Your task to perform on an android device: Add "razer blackwidow" to the cart on target, then select checkout. Image 0: 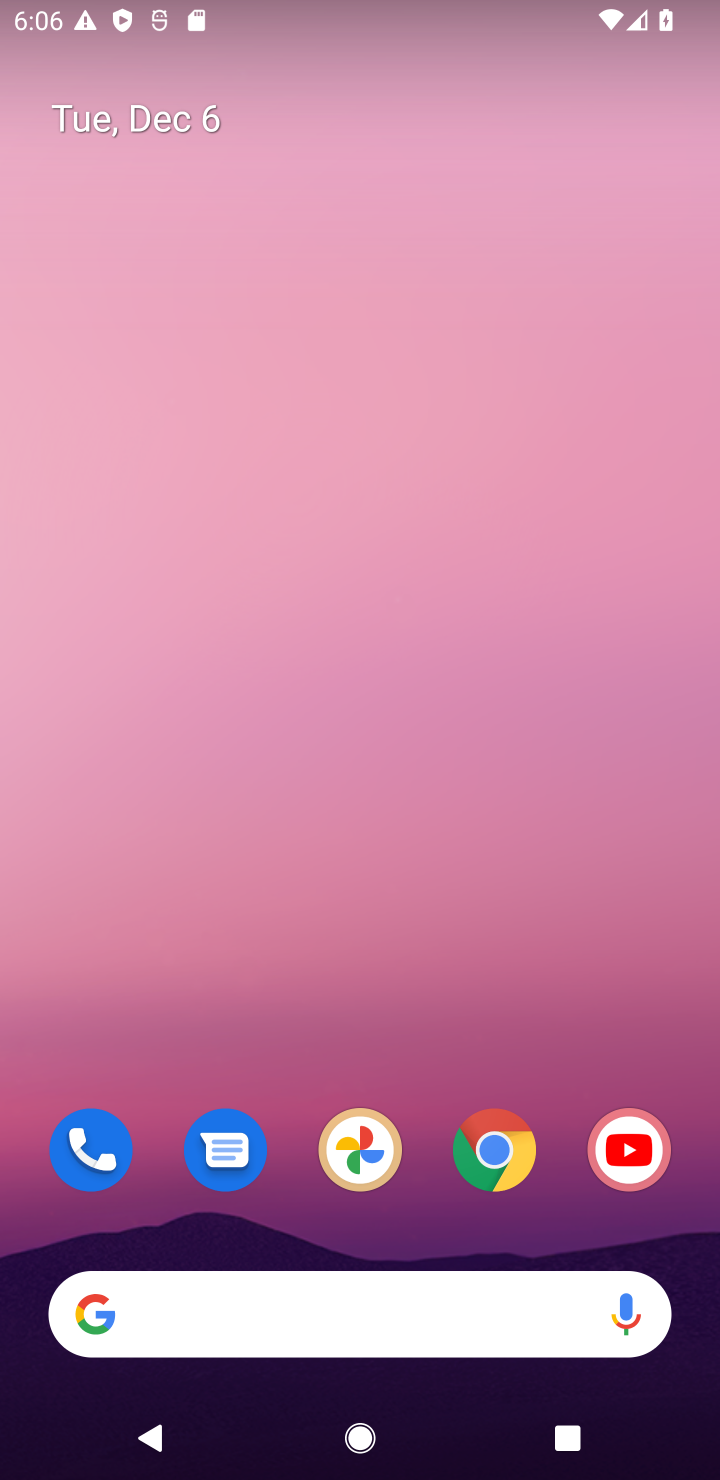
Step 0: click (506, 1137)
Your task to perform on an android device: Add "razer blackwidow" to the cart on target, then select checkout. Image 1: 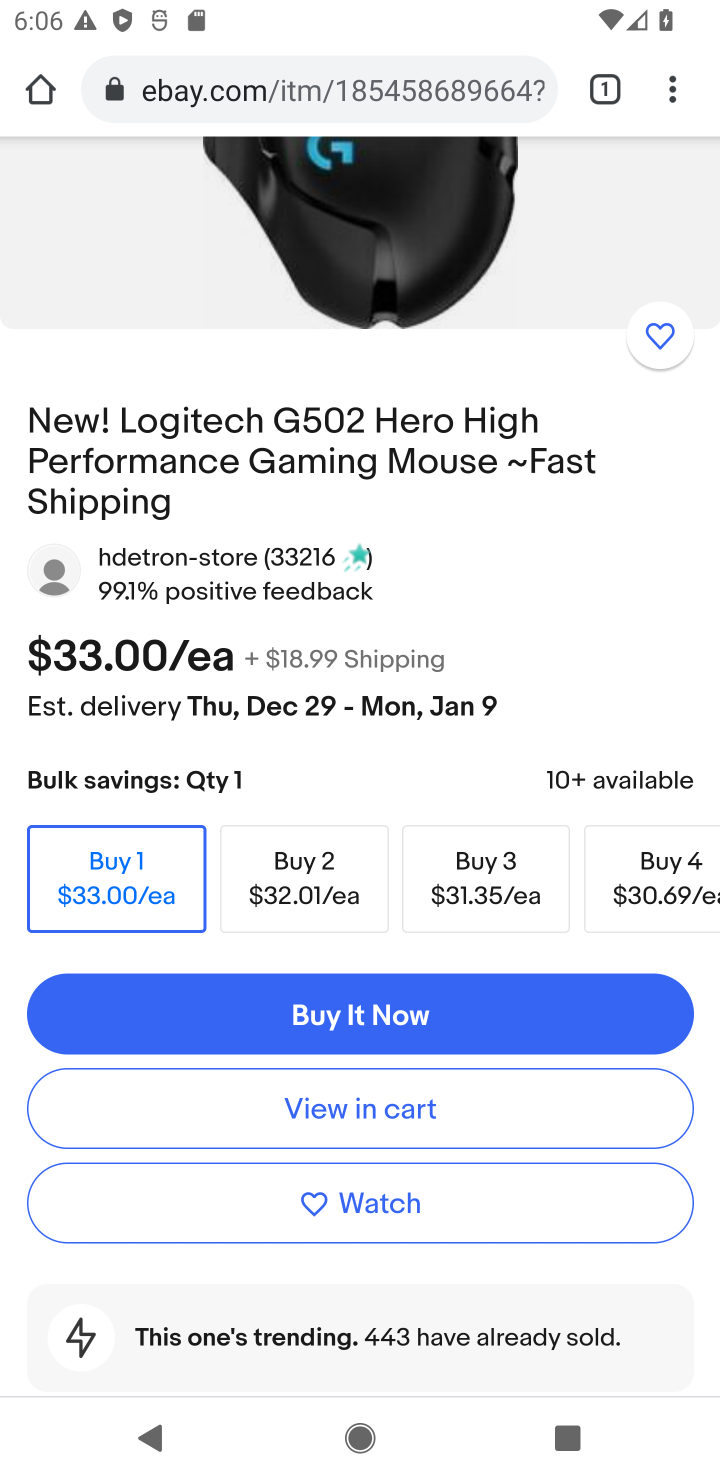
Step 1: click (259, 101)
Your task to perform on an android device: Add "razer blackwidow" to the cart on target, then select checkout. Image 2: 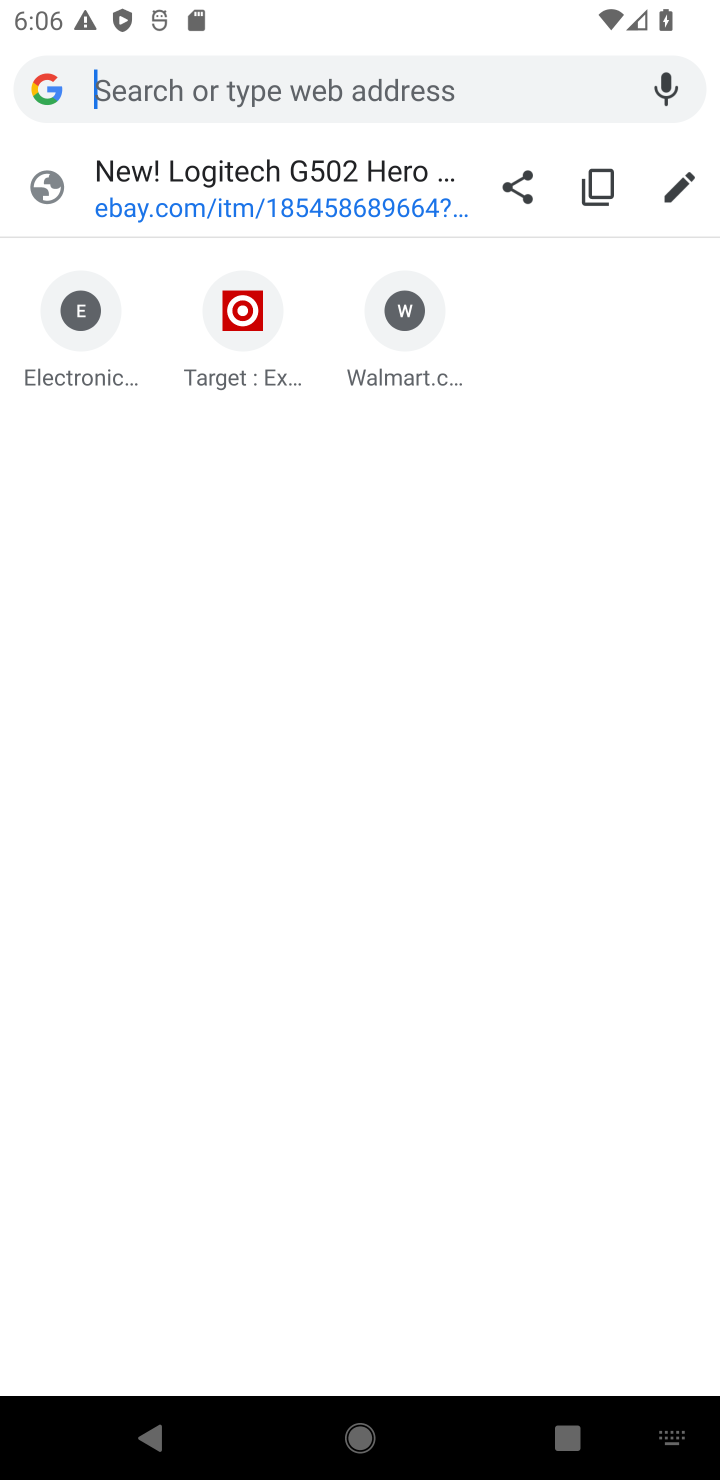
Step 2: click (243, 356)
Your task to perform on an android device: Add "razer blackwidow" to the cart on target, then select checkout. Image 3: 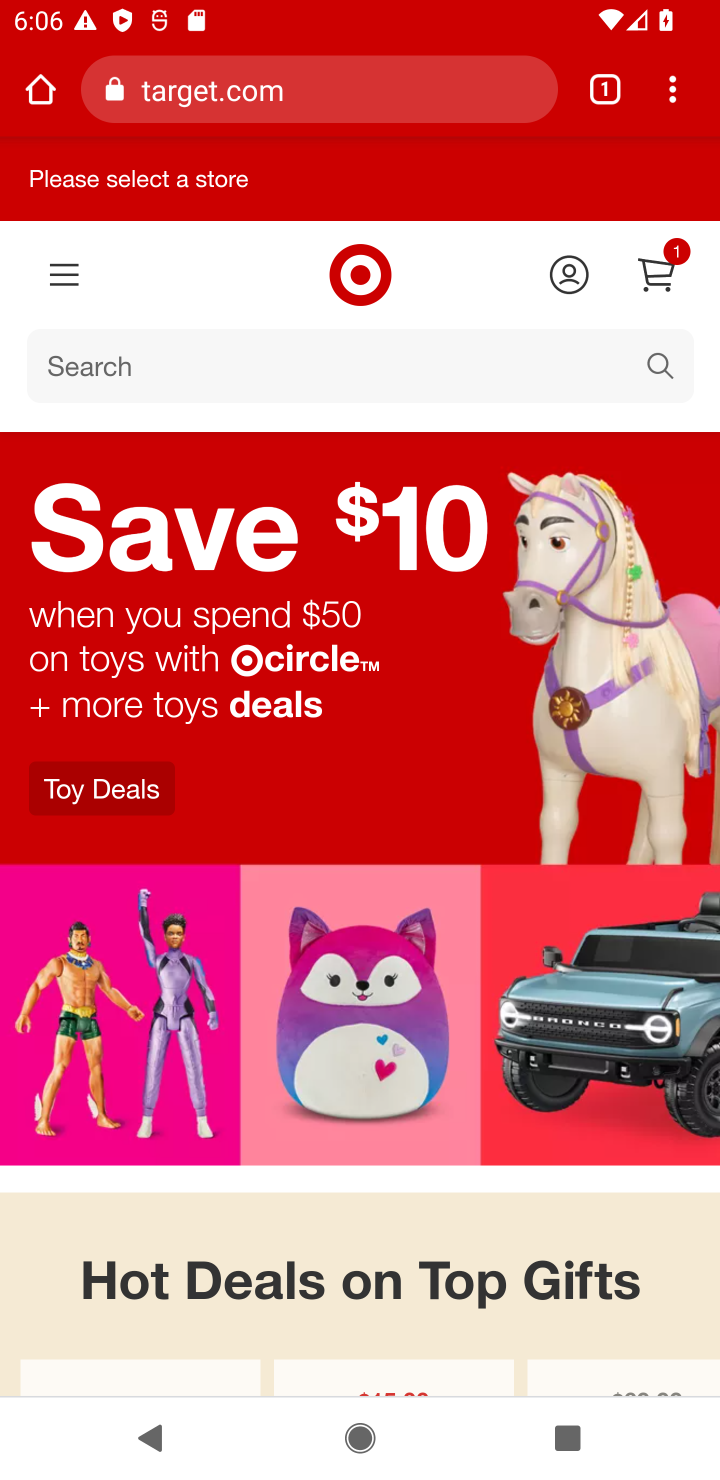
Step 3: click (69, 370)
Your task to perform on an android device: Add "razer blackwidow" to the cart on target, then select checkout. Image 4: 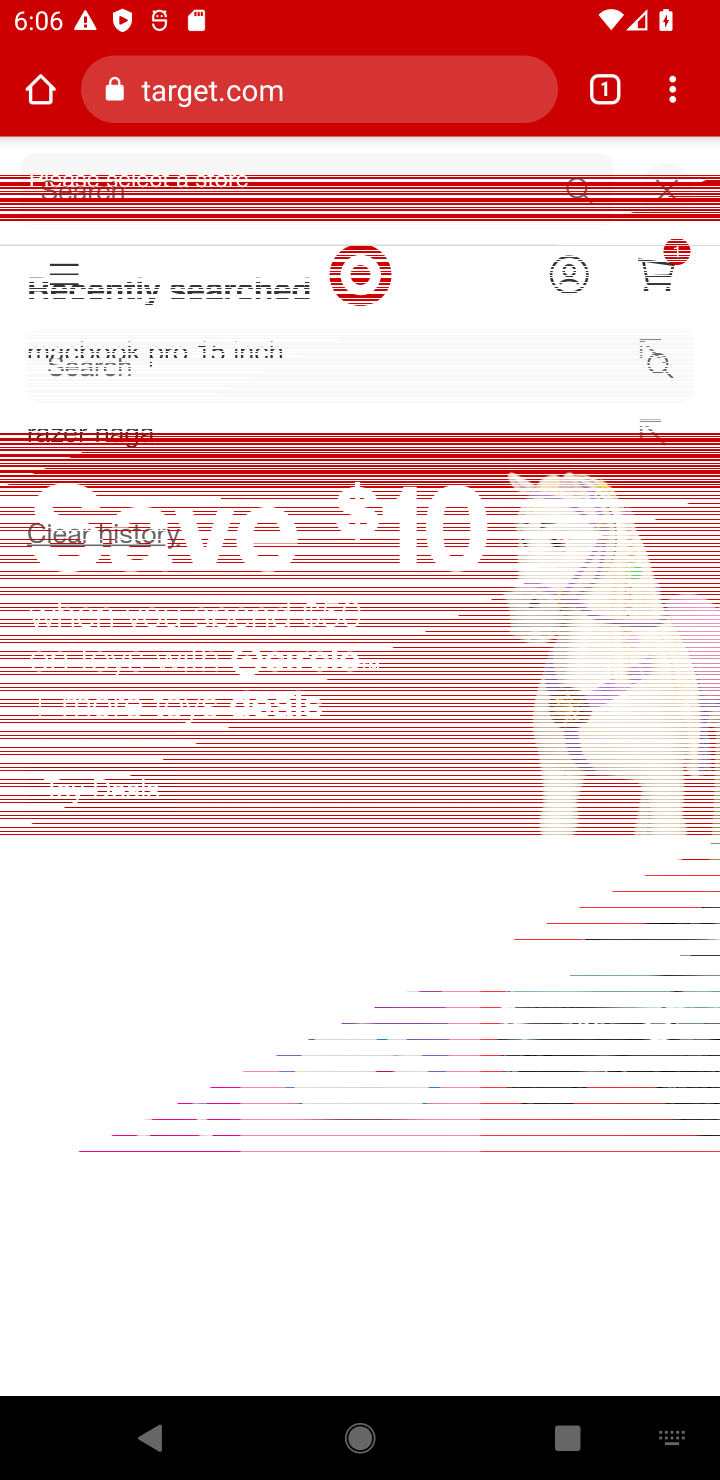
Step 4: type "razer blackwidow"
Your task to perform on an android device: Add "razer blackwidow" to the cart on target, then select checkout. Image 5: 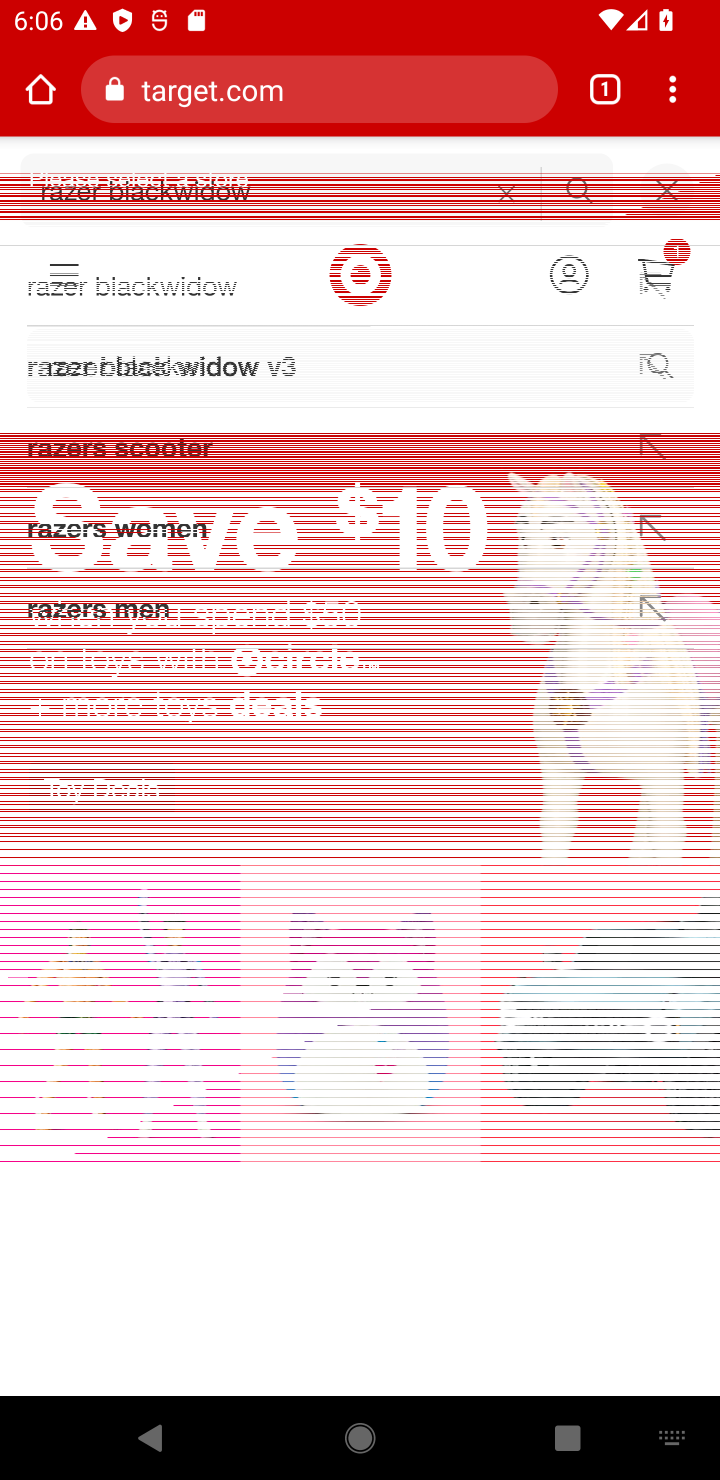
Step 5: click (124, 292)
Your task to perform on an android device: Add "razer blackwidow" to the cart on target, then select checkout. Image 6: 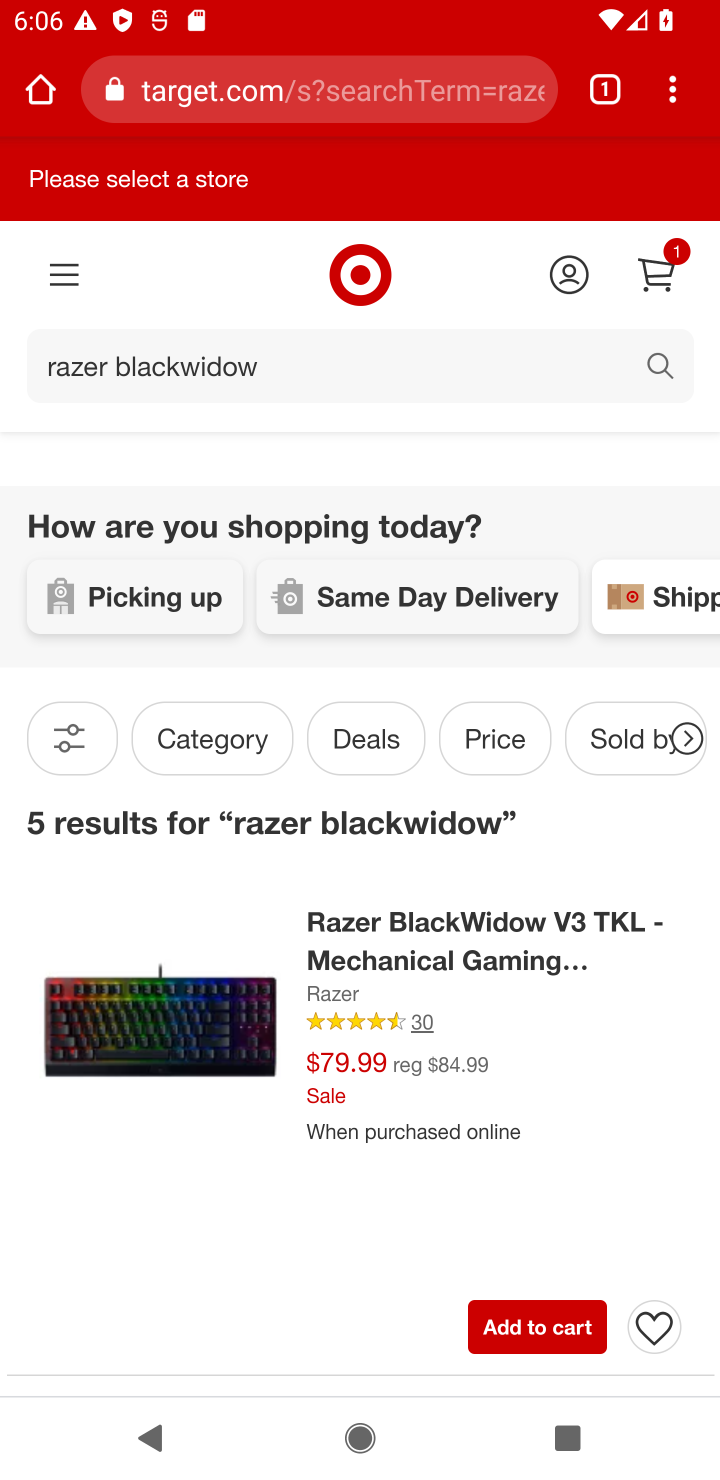
Step 6: drag from (109, 902) to (117, 556)
Your task to perform on an android device: Add "razer blackwidow" to the cart on target, then select checkout. Image 7: 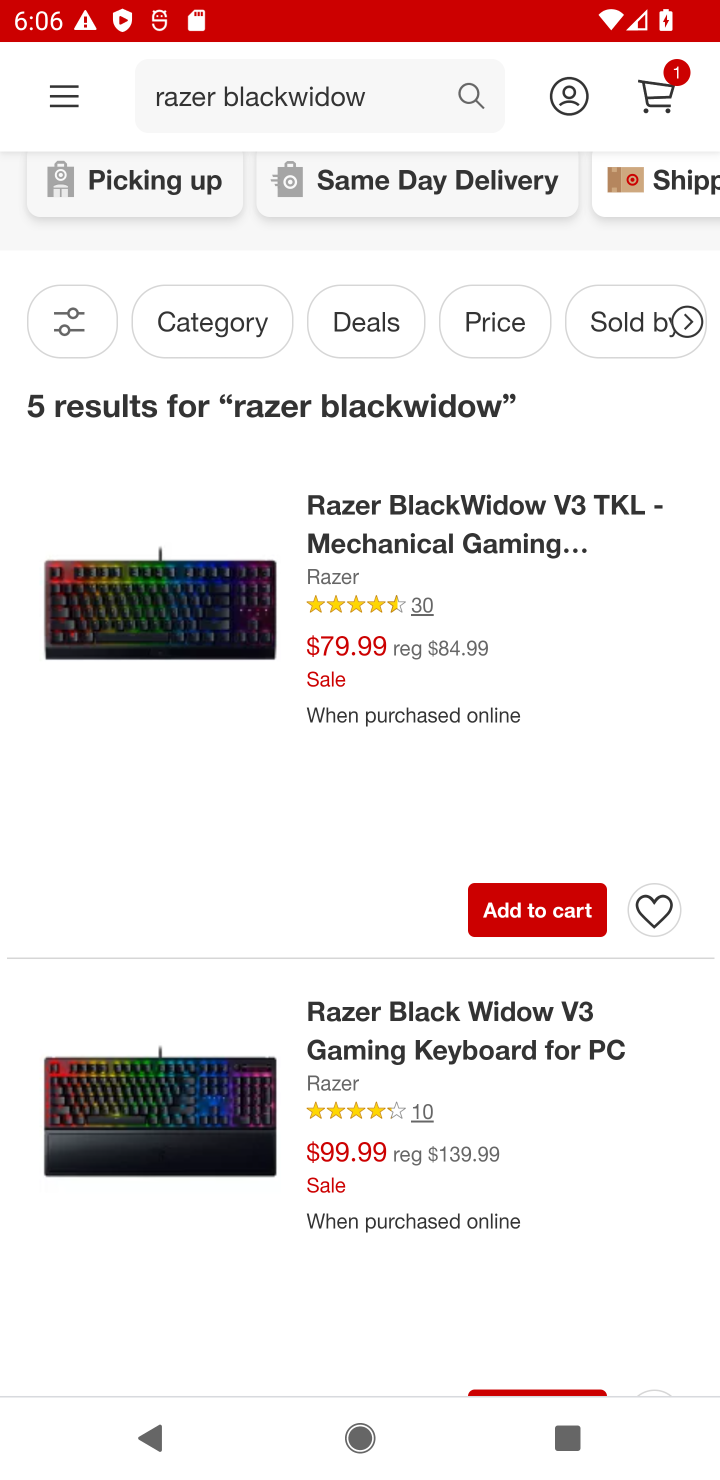
Step 7: click (537, 916)
Your task to perform on an android device: Add "razer blackwidow" to the cart on target, then select checkout. Image 8: 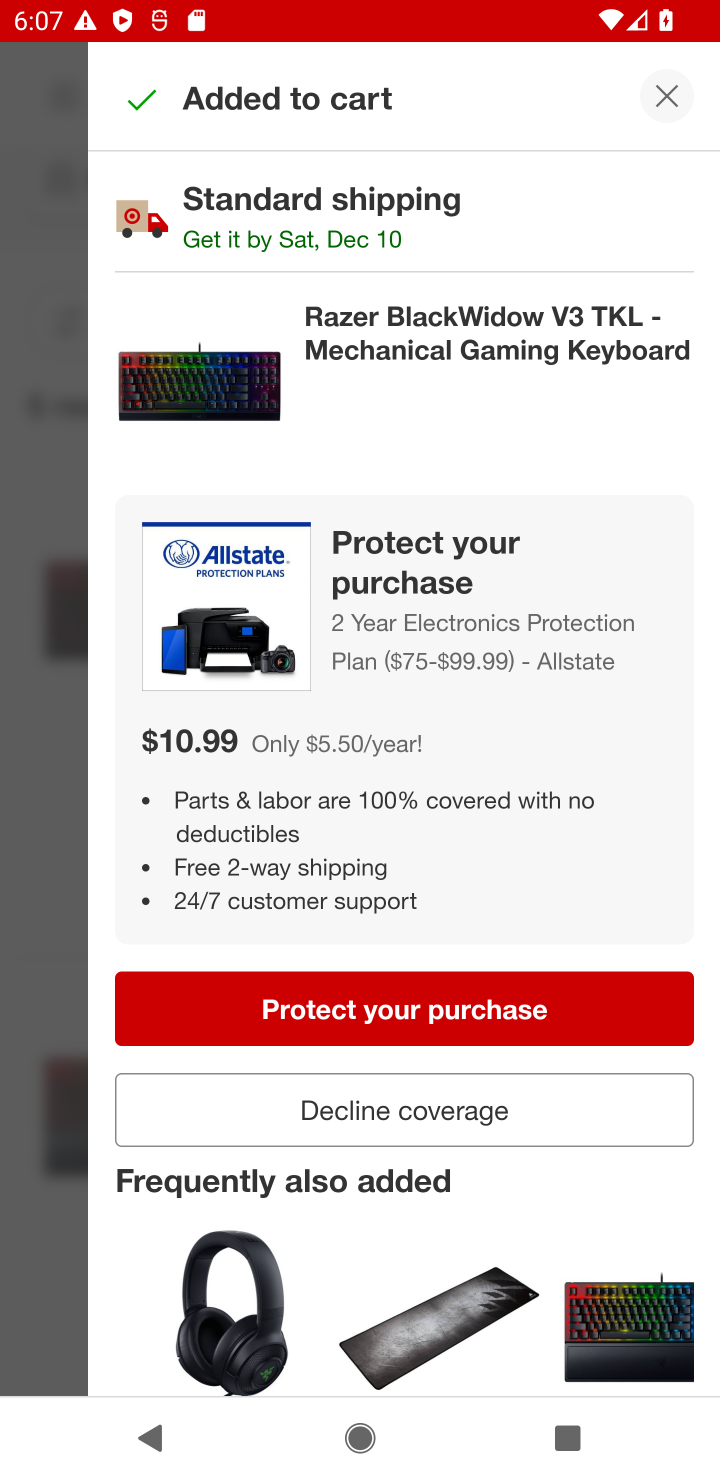
Step 8: click (676, 108)
Your task to perform on an android device: Add "razer blackwidow" to the cart on target, then select checkout. Image 9: 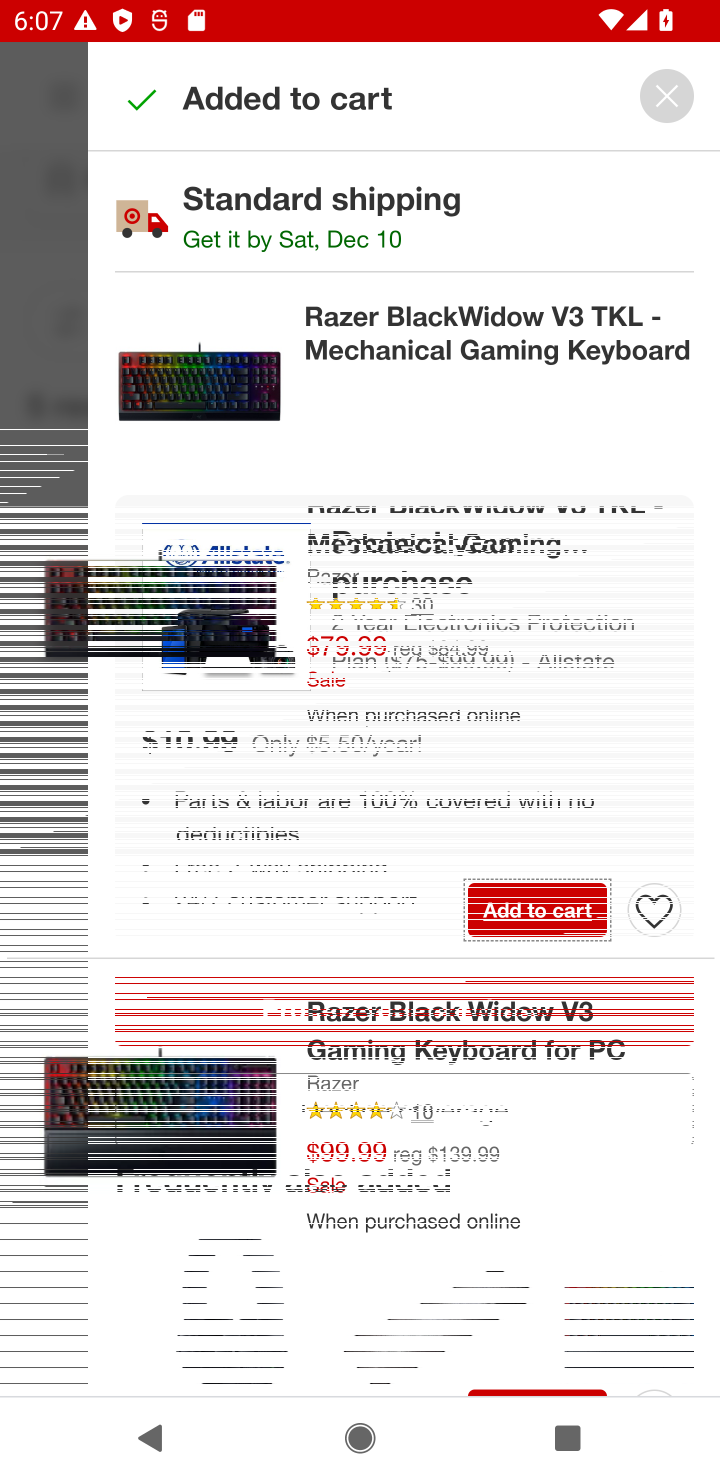
Step 9: click (666, 94)
Your task to perform on an android device: Add "razer blackwidow" to the cart on target, then select checkout. Image 10: 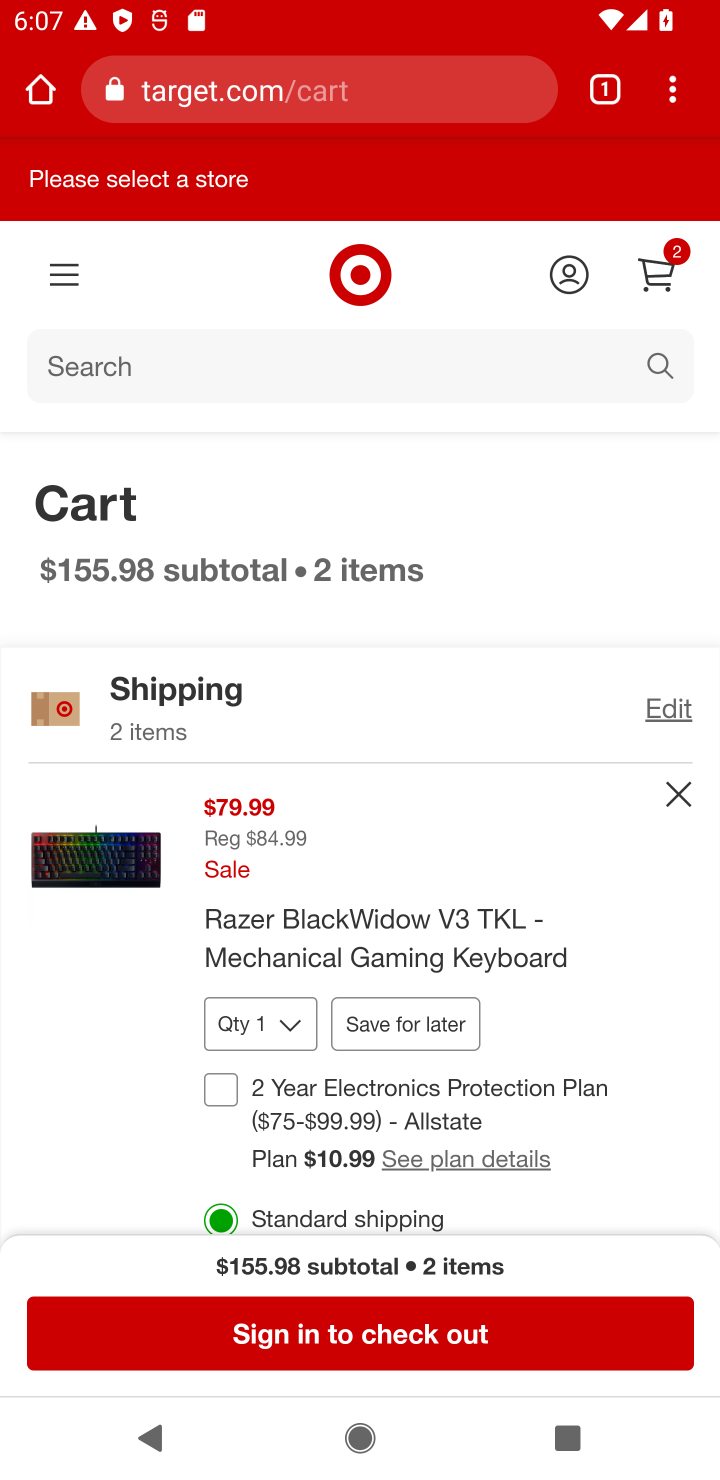
Step 10: drag from (457, 703) to (461, 573)
Your task to perform on an android device: Add "razer blackwidow" to the cart on target, then select checkout. Image 11: 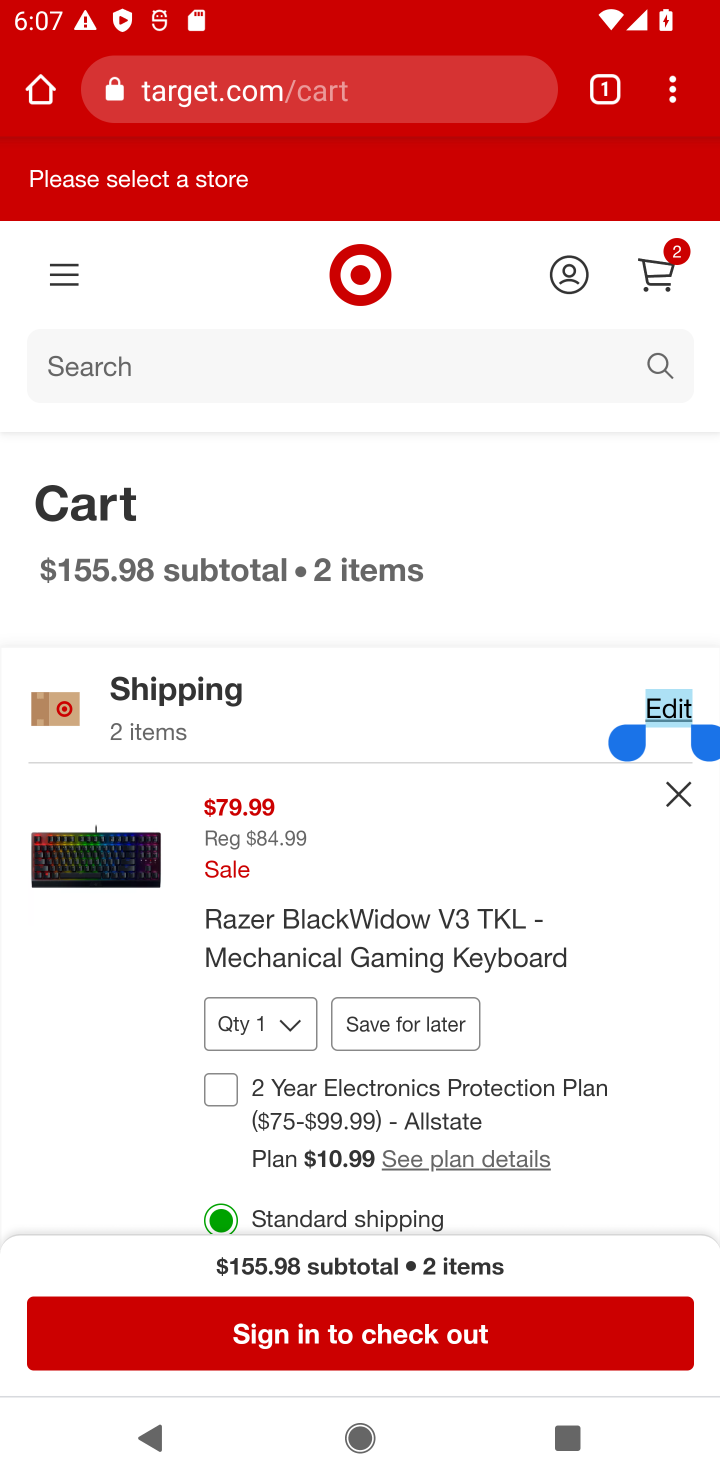
Step 11: click (378, 1328)
Your task to perform on an android device: Add "razer blackwidow" to the cart on target, then select checkout. Image 12: 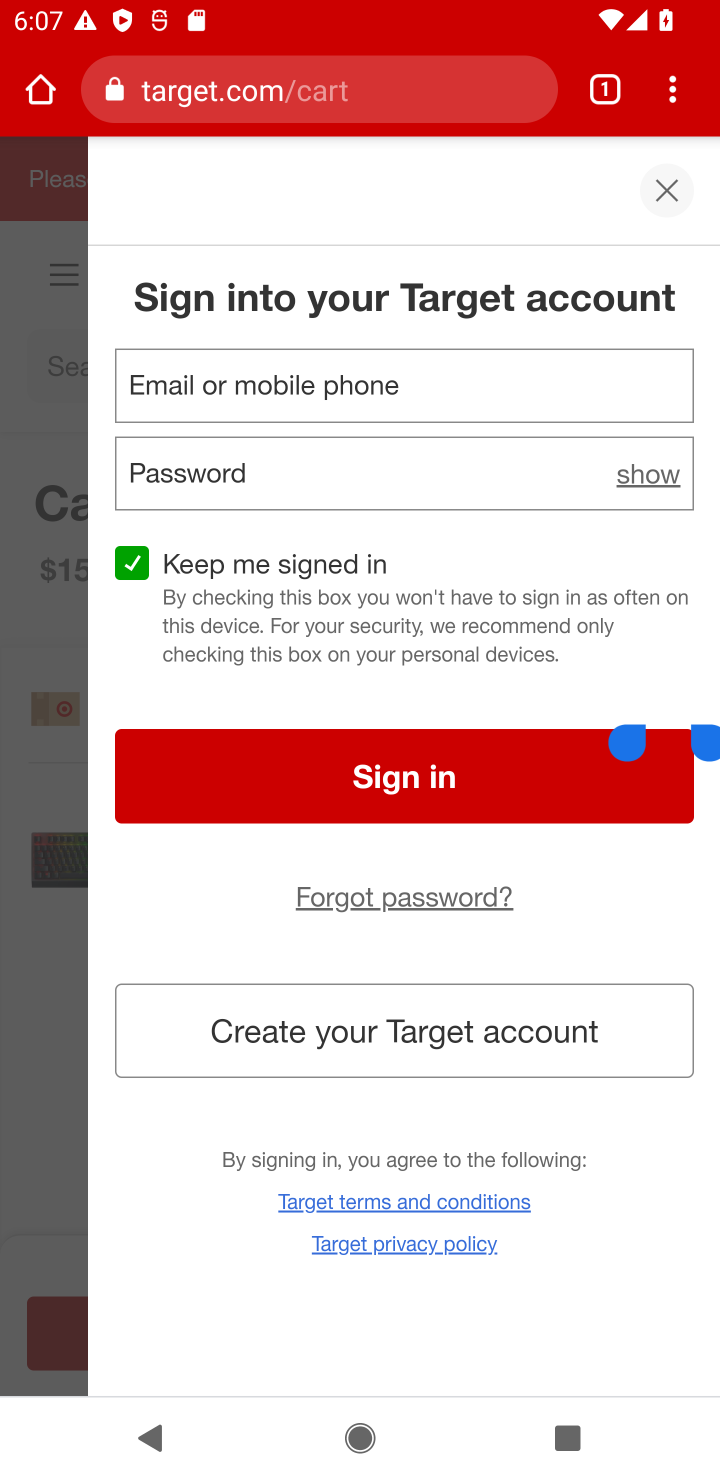
Step 12: task complete